Your task to perform on an android device: Search for logitech g910 on walmart, select the first entry, add it to the cart, then select checkout. Image 0: 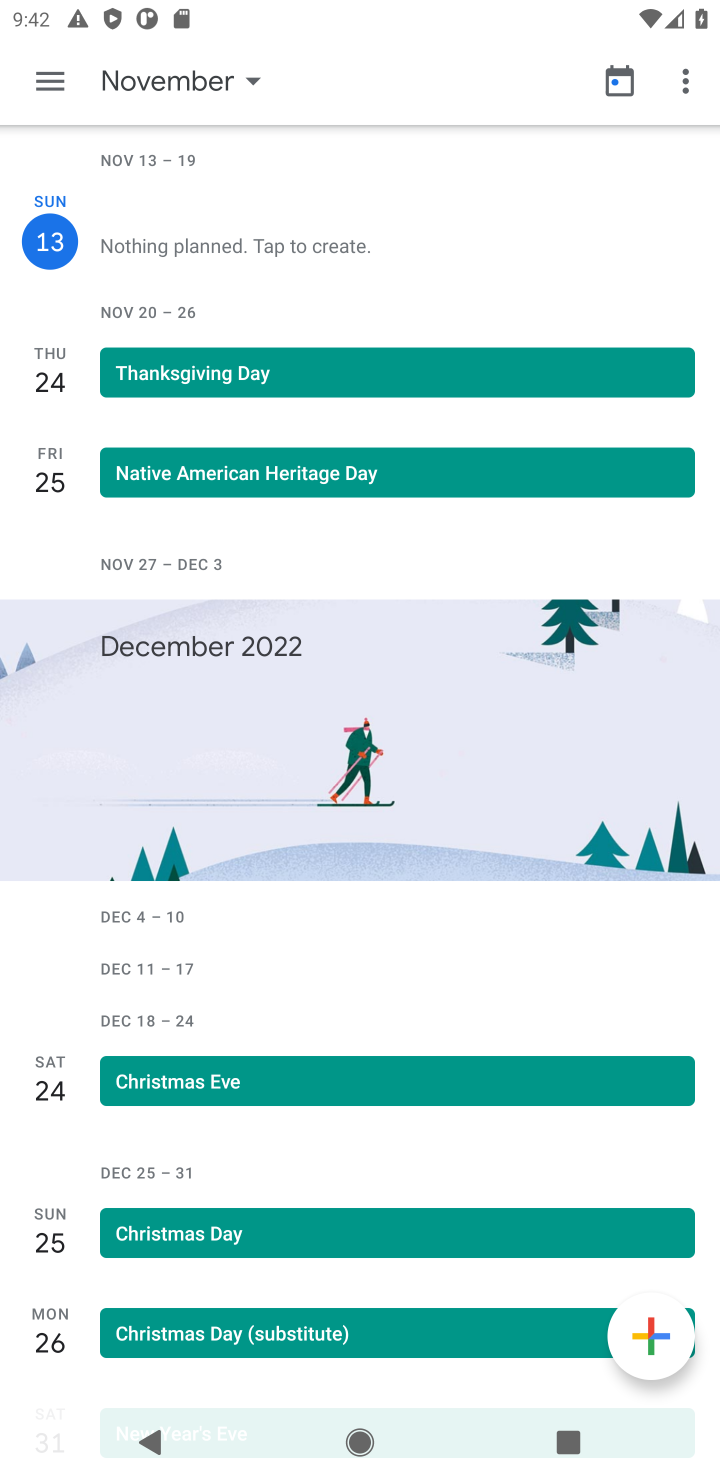
Step 0: press home button
Your task to perform on an android device: Search for logitech g910 on walmart, select the first entry, add it to the cart, then select checkout. Image 1: 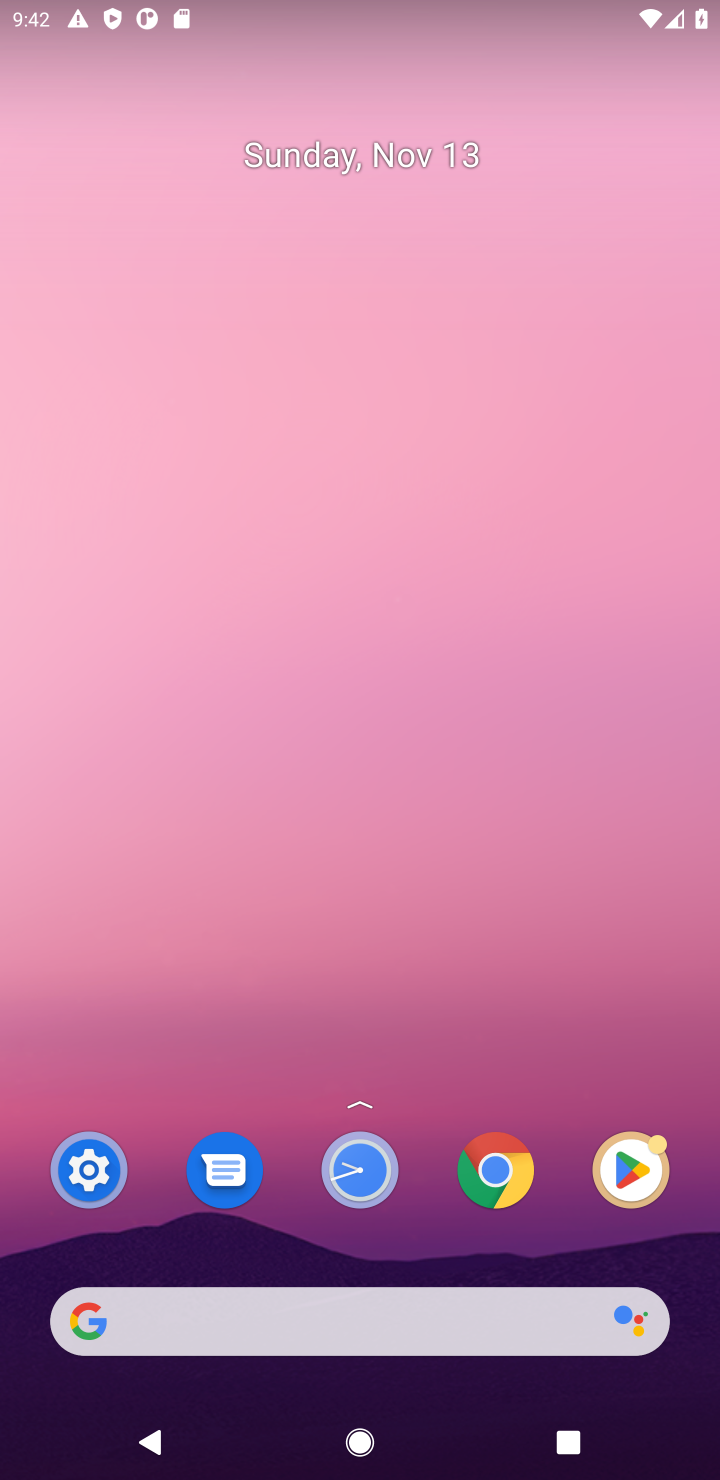
Step 1: click (335, 1340)
Your task to perform on an android device: Search for logitech g910 on walmart, select the first entry, add it to the cart, then select checkout. Image 2: 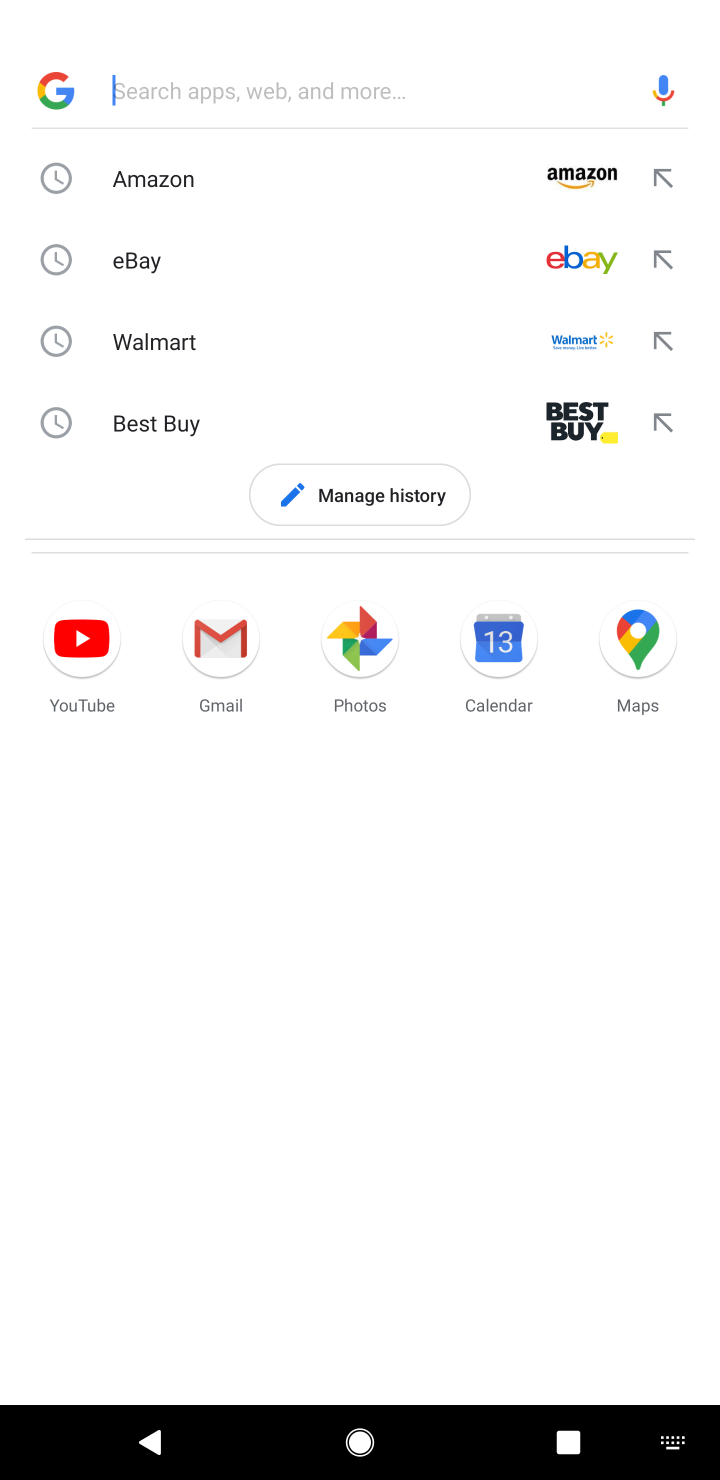
Step 2: type "walmart"
Your task to perform on an android device: Search for logitech g910 on walmart, select the first entry, add it to the cart, then select checkout. Image 3: 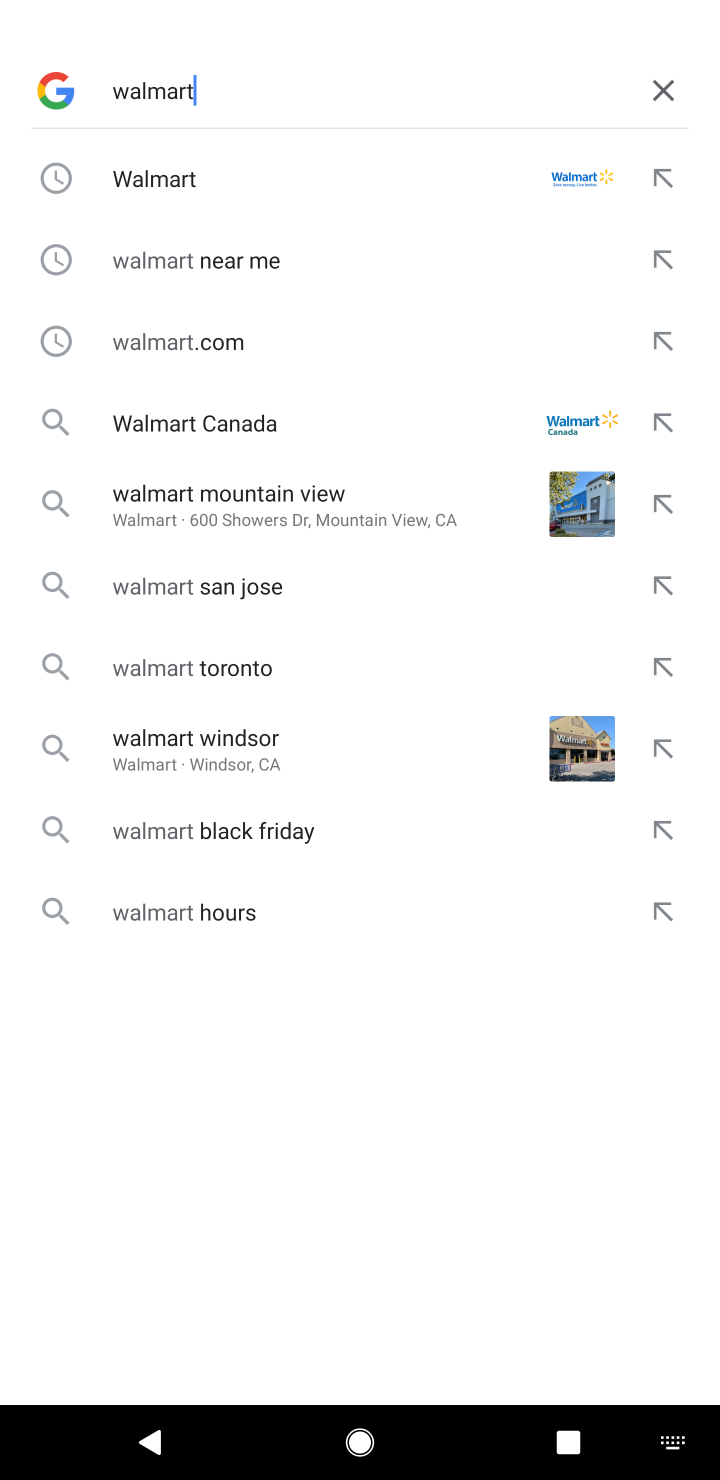
Step 3: click (201, 185)
Your task to perform on an android device: Search for logitech g910 on walmart, select the first entry, add it to the cart, then select checkout. Image 4: 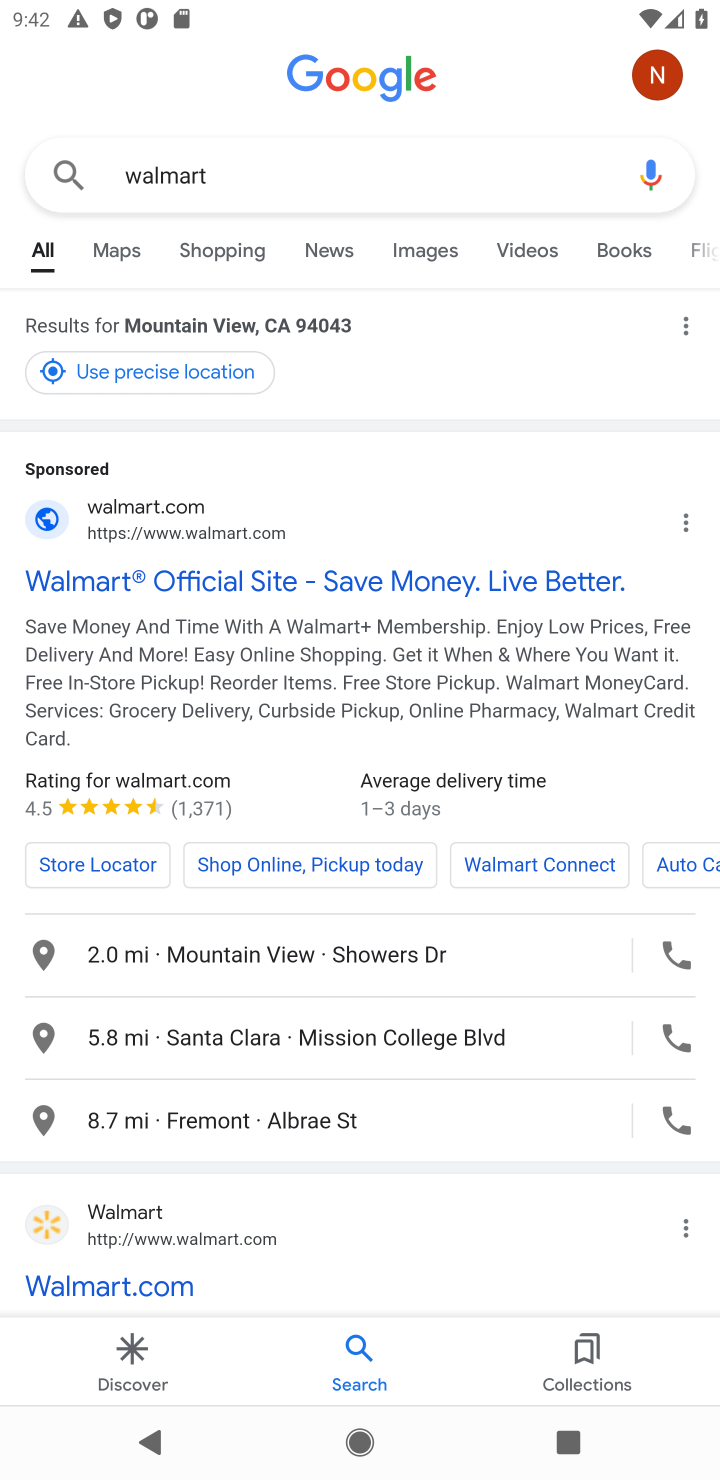
Step 4: click (138, 565)
Your task to perform on an android device: Search for logitech g910 on walmart, select the first entry, add it to the cart, then select checkout. Image 5: 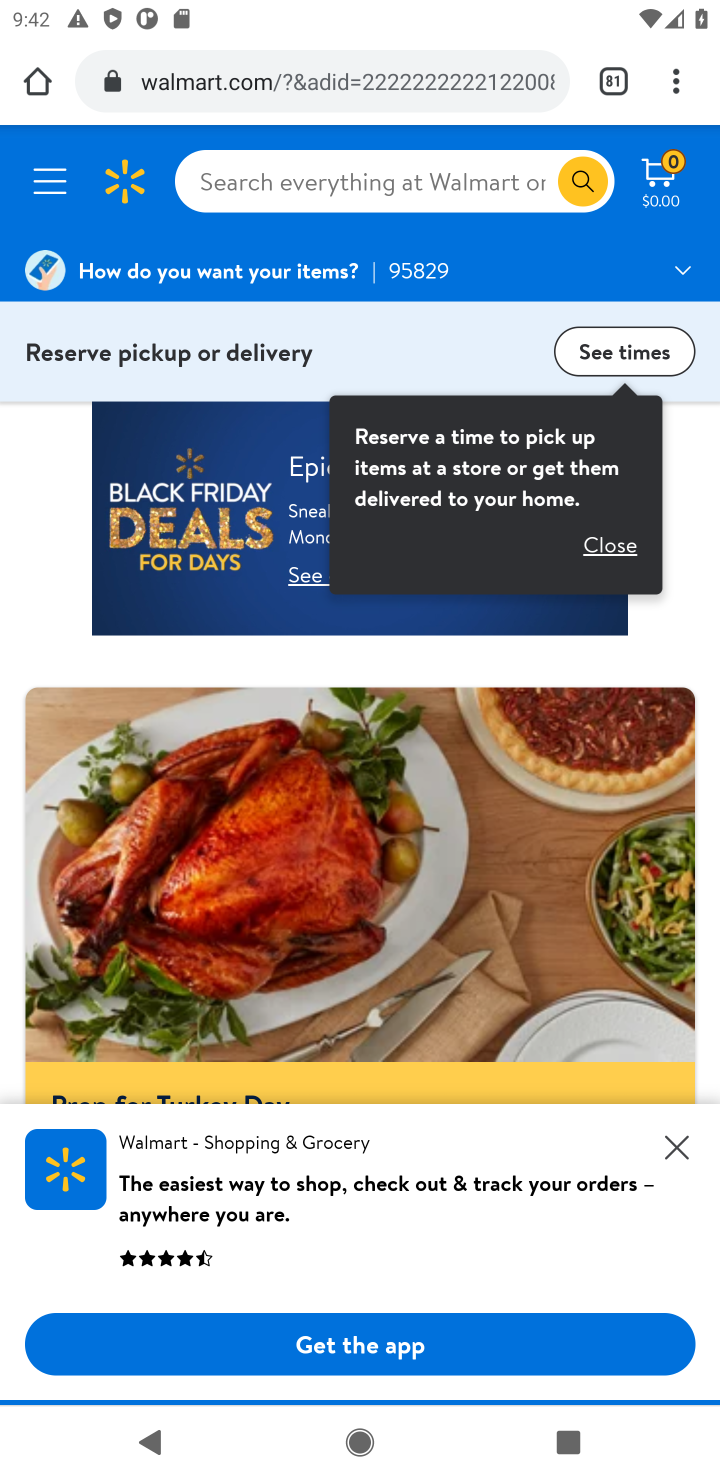
Step 5: task complete